Your task to perform on an android device: Open the phone app and click the voicemail tab. Image 0: 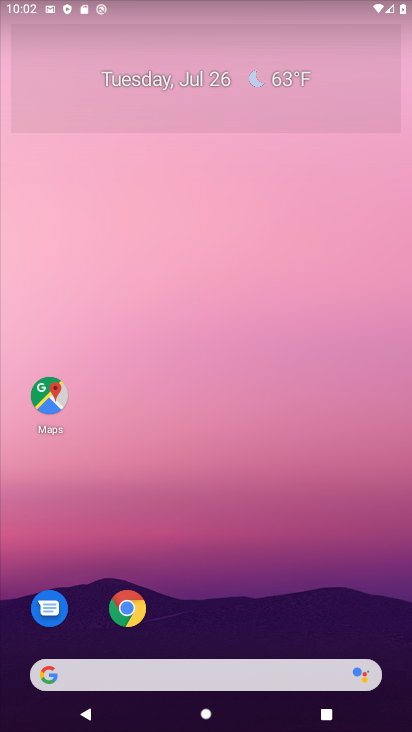
Step 0: press home button
Your task to perform on an android device: Open the phone app and click the voicemail tab. Image 1: 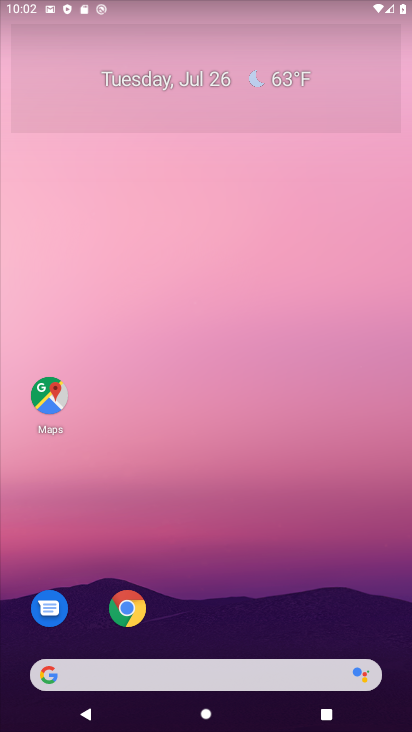
Step 1: drag from (314, 587) to (254, 127)
Your task to perform on an android device: Open the phone app and click the voicemail tab. Image 2: 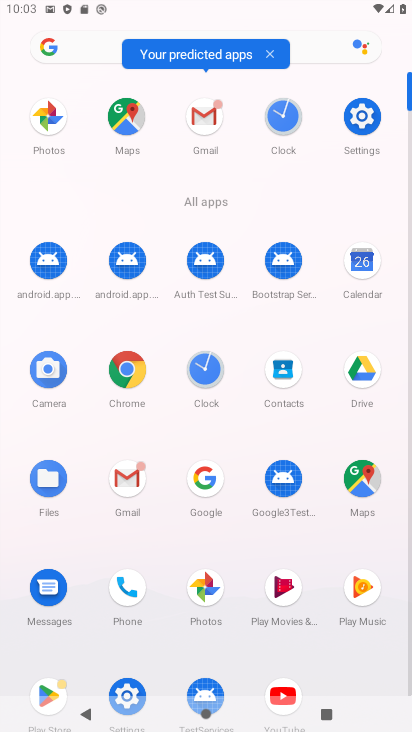
Step 2: click (134, 587)
Your task to perform on an android device: Open the phone app and click the voicemail tab. Image 3: 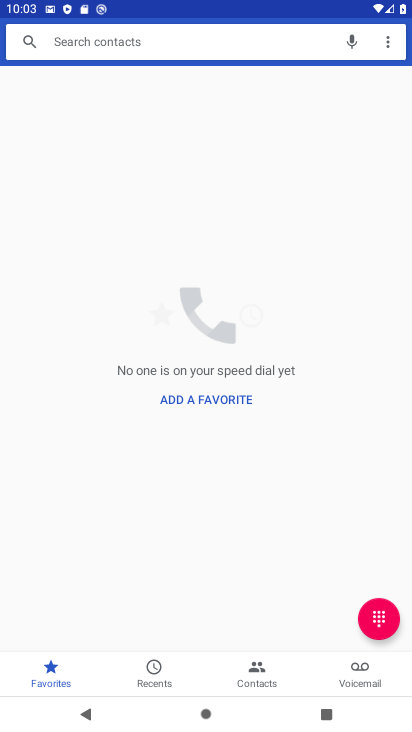
Step 3: click (367, 677)
Your task to perform on an android device: Open the phone app and click the voicemail tab. Image 4: 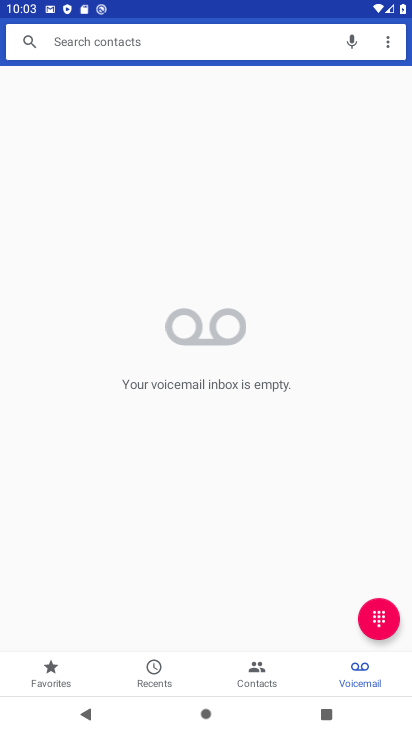
Step 4: task complete